Your task to perform on an android device: Go to Reddit.com Image 0: 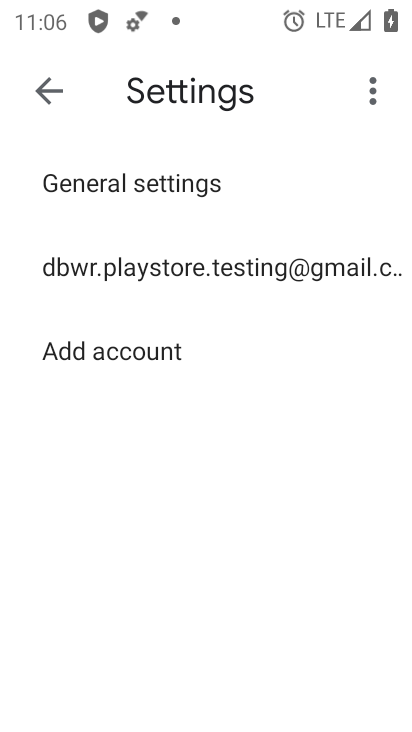
Step 0: click (56, 95)
Your task to perform on an android device: Go to Reddit.com Image 1: 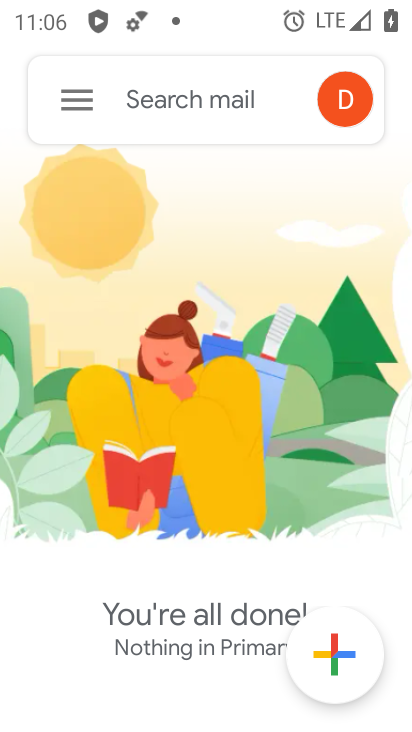
Step 1: press back button
Your task to perform on an android device: Go to Reddit.com Image 2: 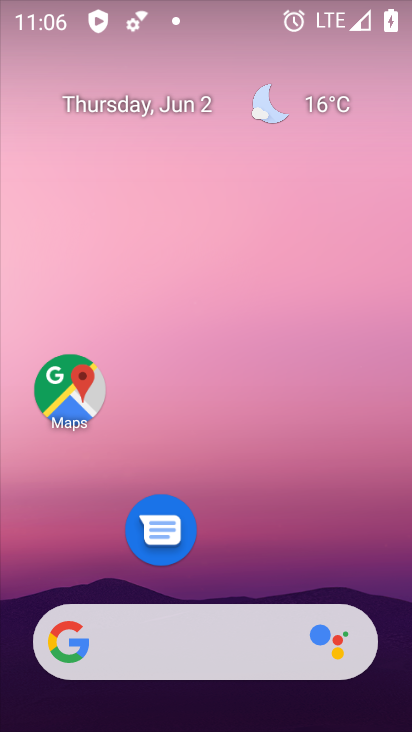
Step 2: drag from (264, 646) to (193, 116)
Your task to perform on an android device: Go to Reddit.com Image 3: 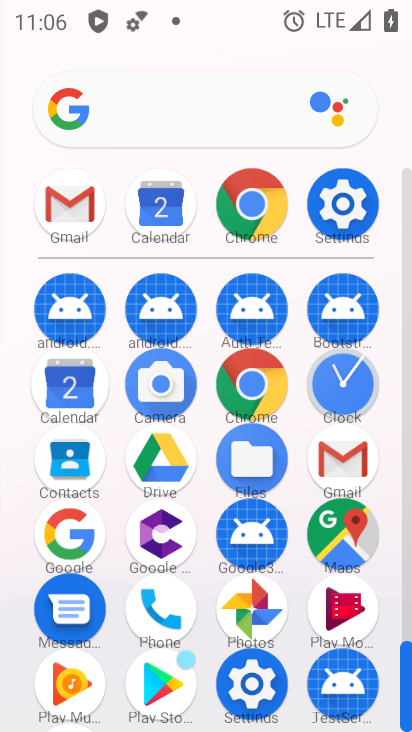
Step 3: click (246, 205)
Your task to perform on an android device: Go to Reddit.com Image 4: 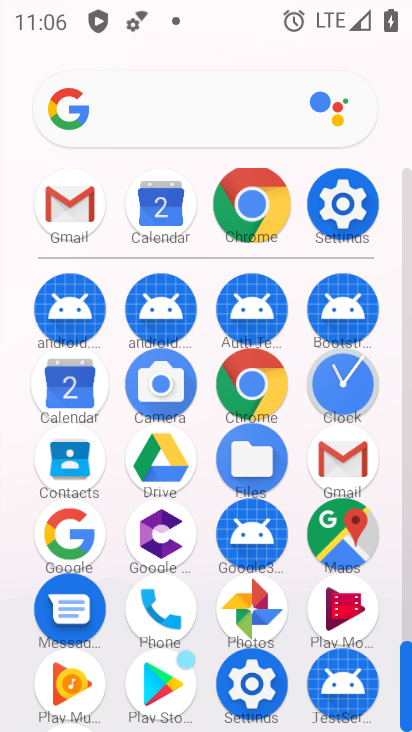
Step 4: click (247, 206)
Your task to perform on an android device: Go to Reddit.com Image 5: 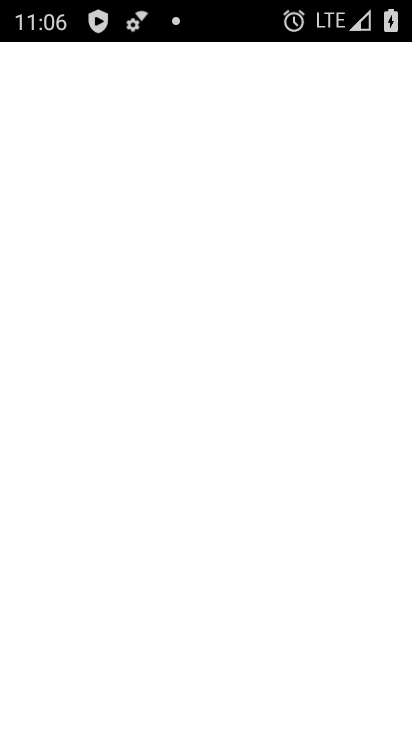
Step 5: click (247, 206)
Your task to perform on an android device: Go to Reddit.com Image 6: 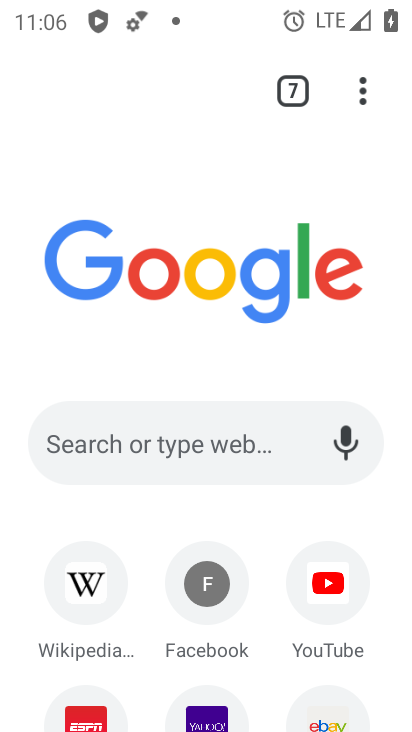
Step 6: click (73, 447)
Your task to perform on an android device: Go to Reddit.com Image 7: 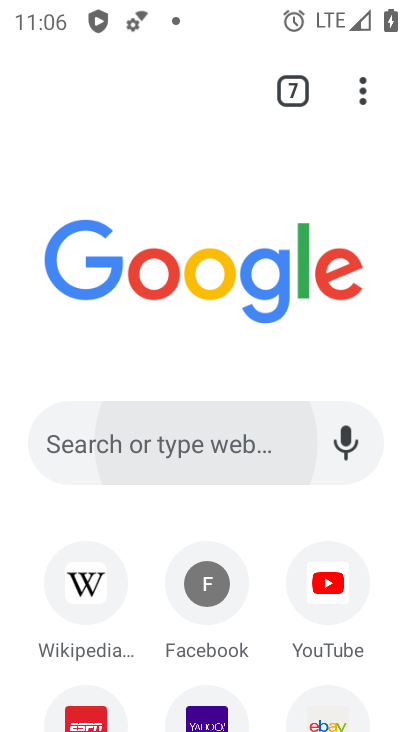
Step 7: click (73, 448)
Your task to perform on an android device: Go to Reddit.com Image 8: 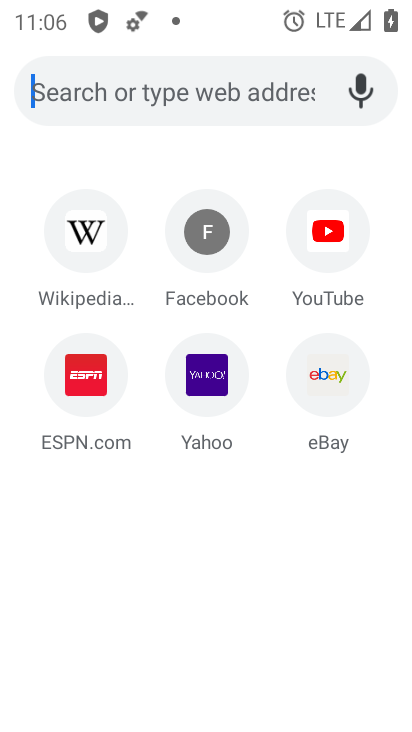
Step 8: click (73, 448)
Your task to perform on an android device: Go to Reddit.com Image 9: 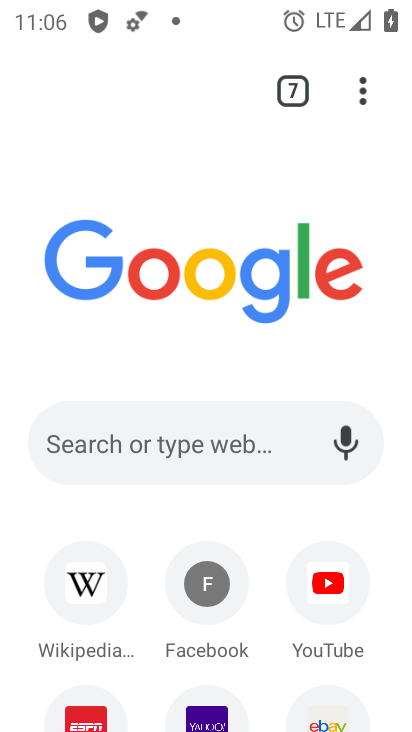
Step 9: click (71, 439)
Your task to perform on an android device: Go to Reddit.com Image 10: 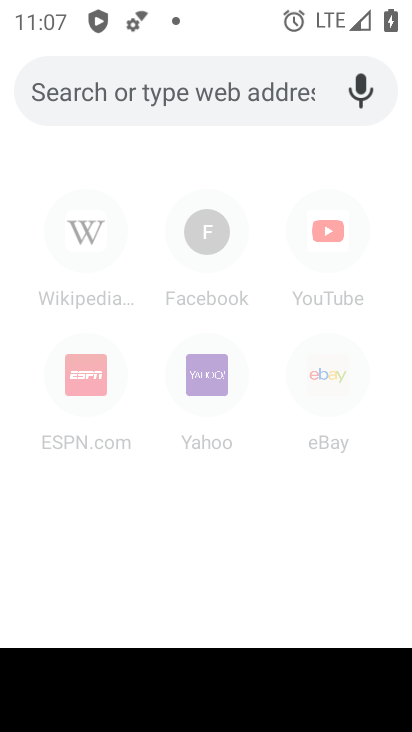
Step 10: type "reddit.com"
Your task to perform on an android device: Go to Reddit.com Image 11: 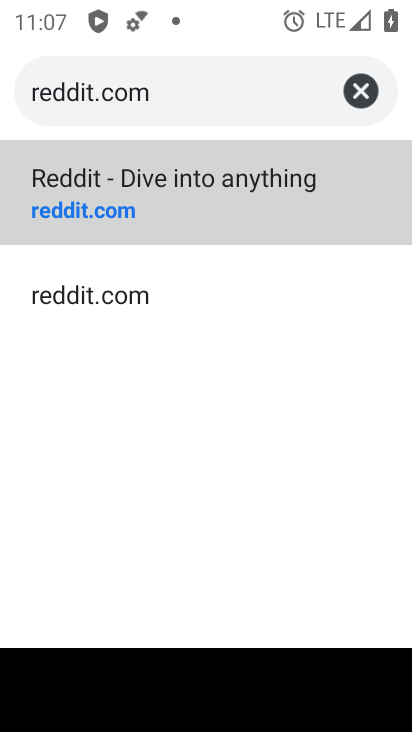
Step 11: click (49, 220)
Your task to perform on an android device: Go to Reddit.com Image 12: 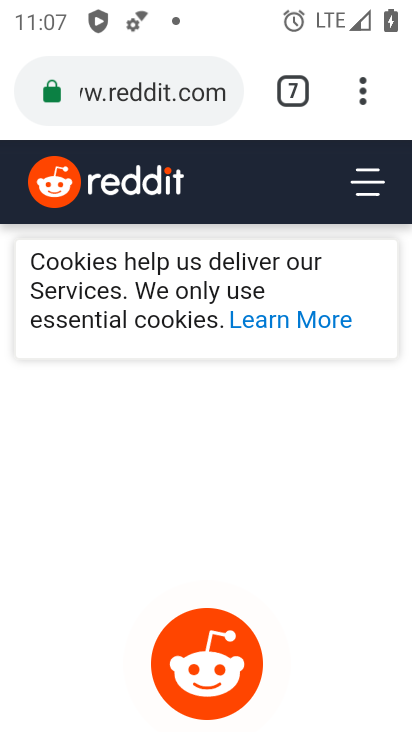
Step 12: task complete